Your task to perform on an android device: turn off javascript in the chrome app Image 0: 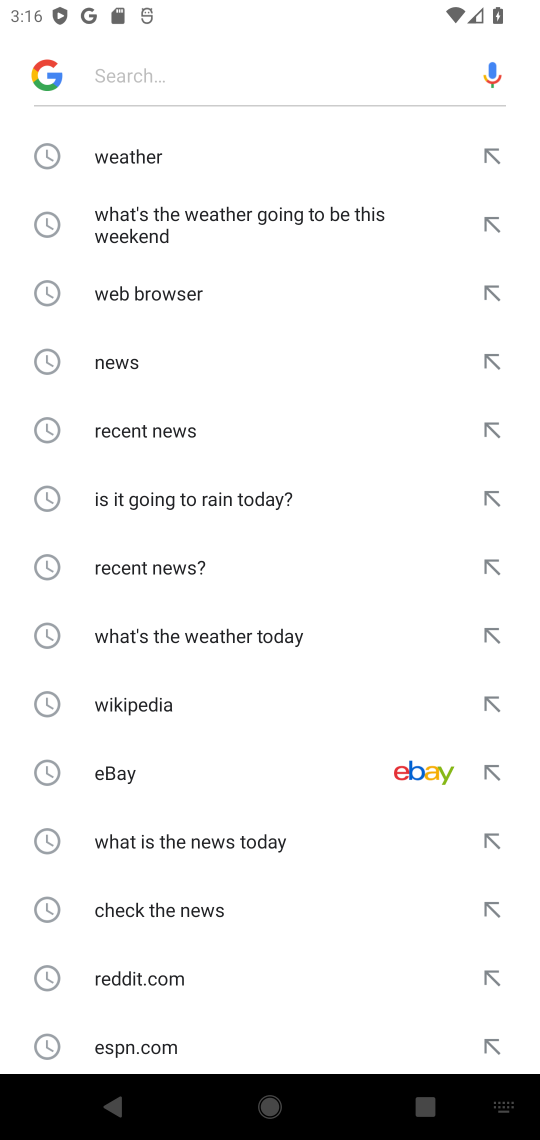
Step 0: drag from (274, 766) to (374, 11)
Your task to perform on an android device: turn off javascript in the chrome app Image 1: 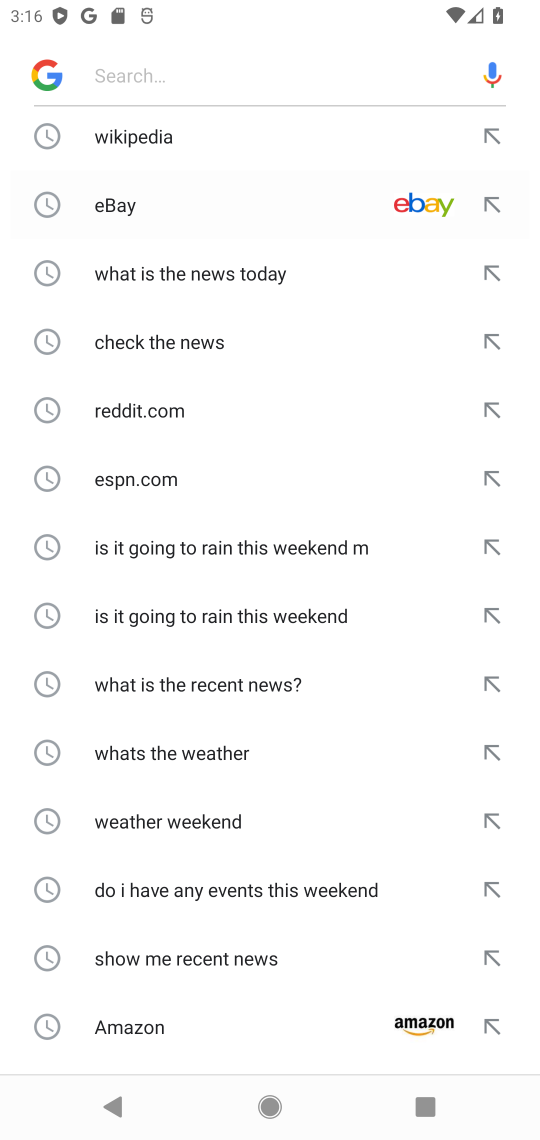
Step 1: drag from (306, 585) to (5, 877)
Your task to perform on an android device: turn off javascript in the chrome app Image 2: 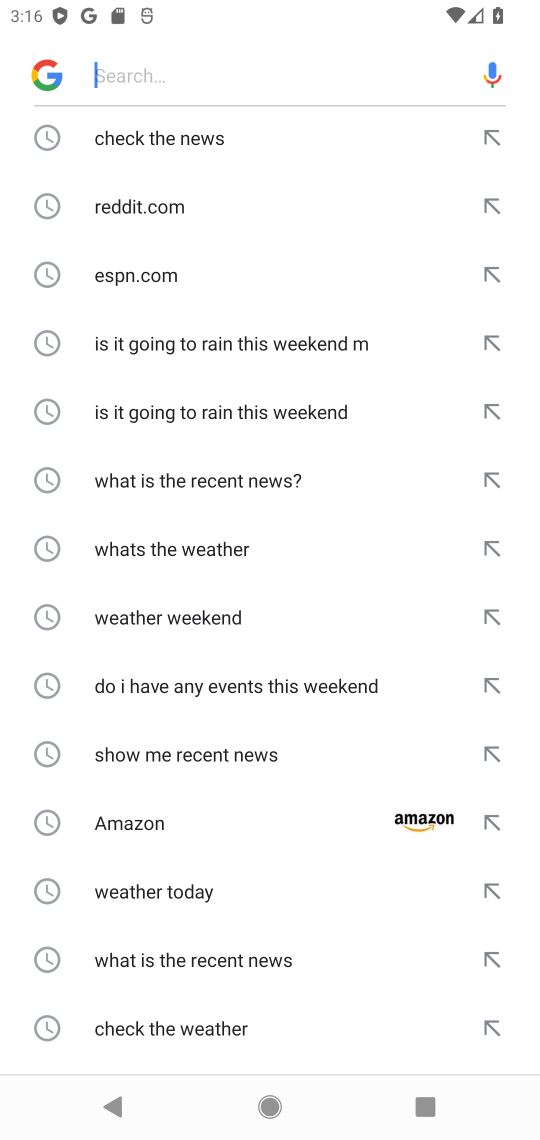
Step 2: press home button
Your task to perform on an android device: turn off javascript in the chrome app Image 3: 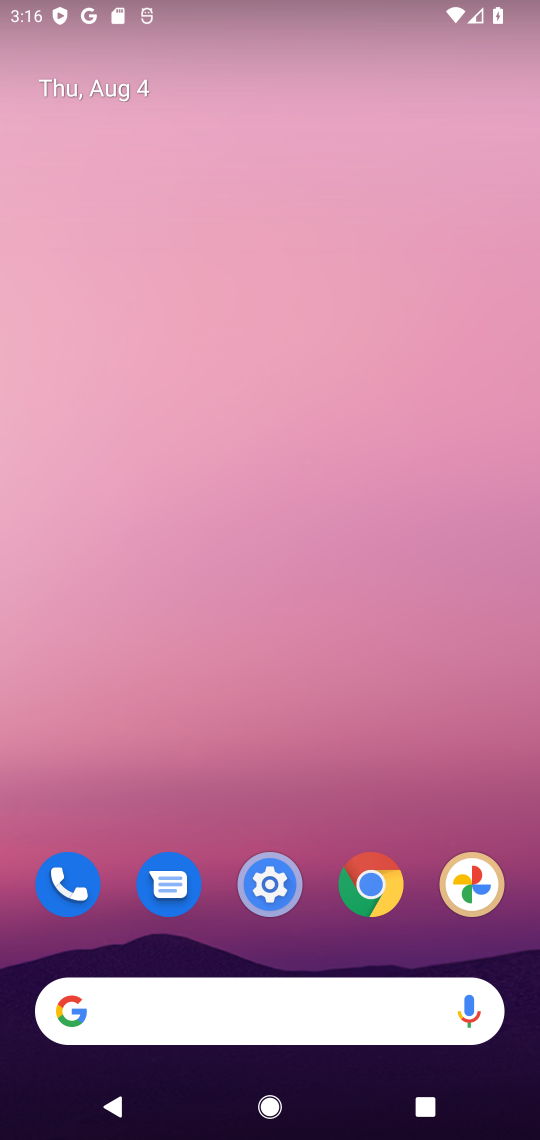
Step 3: drag from (239, 892) to (249, 237)
Your task to perform on an android device: turn off javascript in the chrome app Image 4: 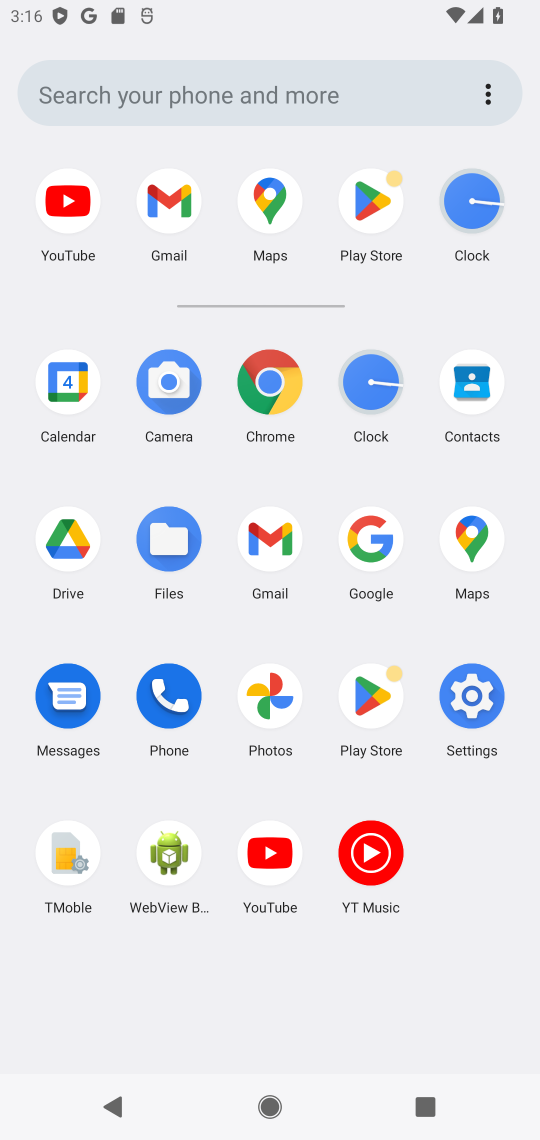
Step 4: click (264, 383)
Your task to perform on an android device: turn off javascript in the chrome app Image 5: 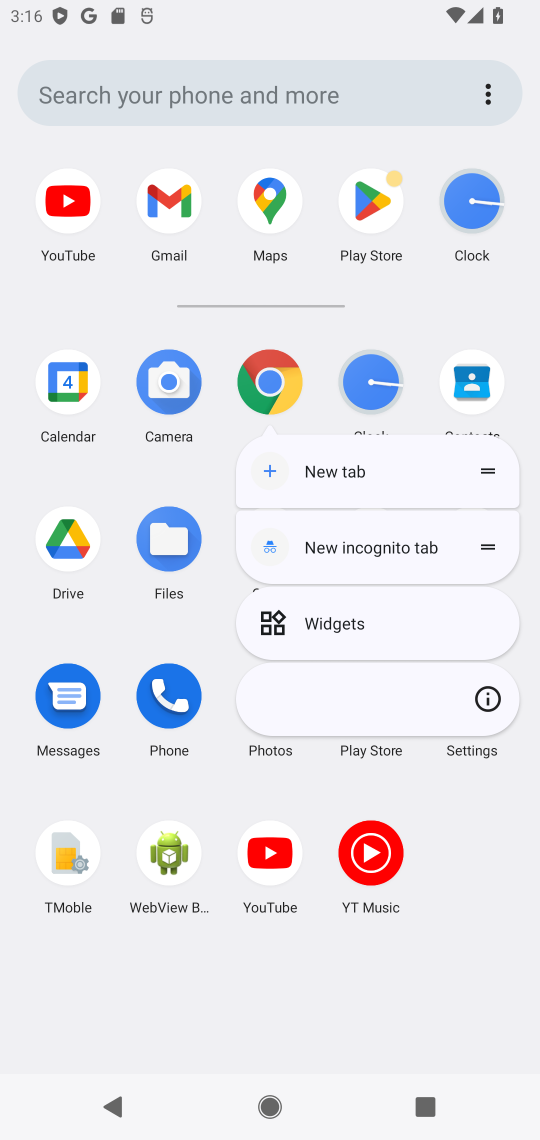
Step 5: click (484, 697)
Your task to perform on an android device: turn off javascript in the chrome app Image 6: 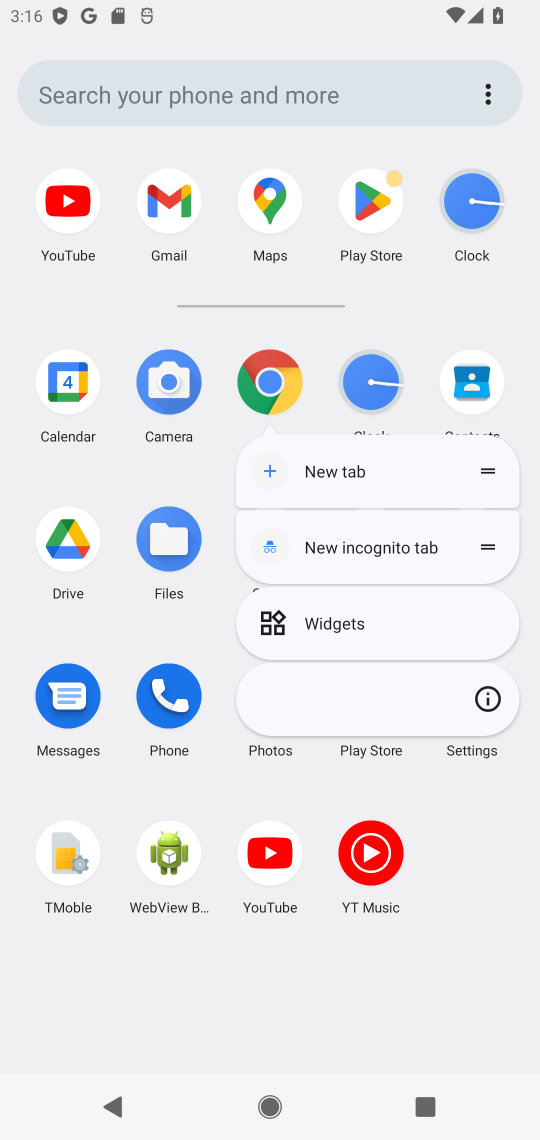
Step 6: click (479, 680)
Your task to perform on an android device: turn off javascript in the chrome app Image 7: 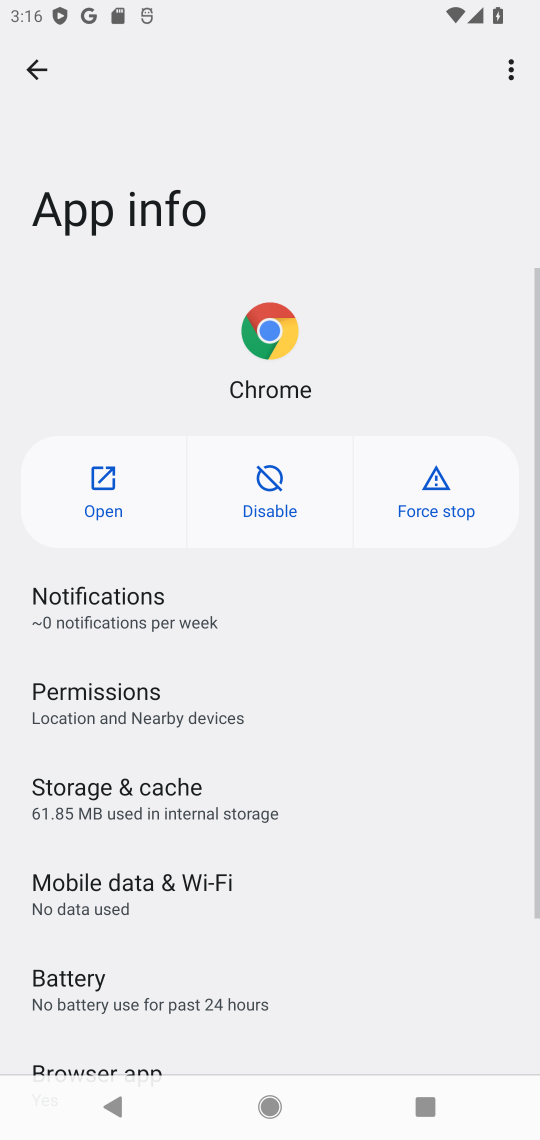
Step 7: click (124, 482)
Your task to perform on an android device: turn off javascript in the chrome app Image 8: 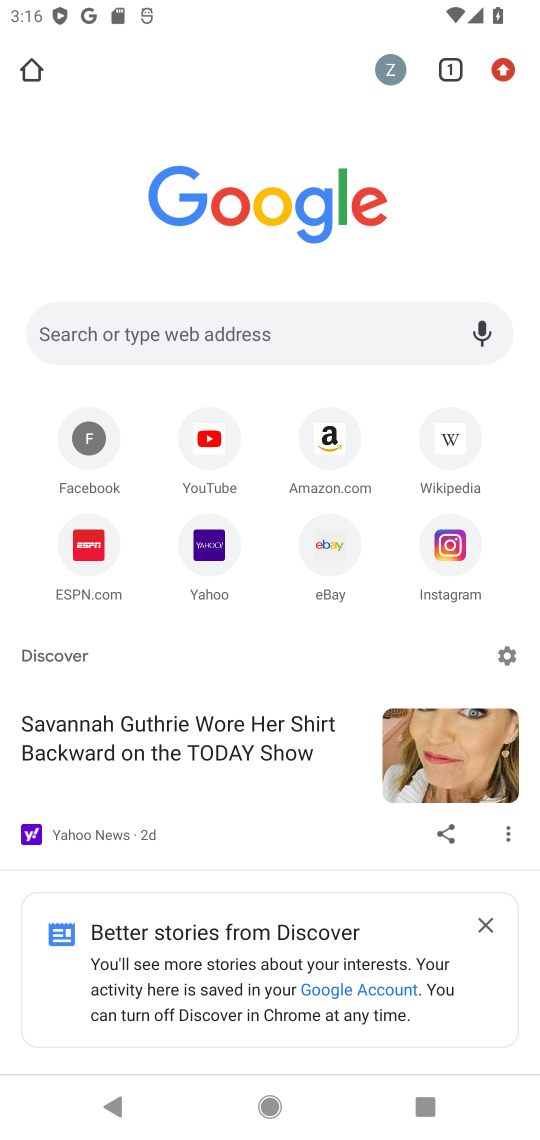
Step 8: drag from (512, 60) to (313, 713)
Your task to perform on an android device: turn off javascript in the chrome app Image 9: 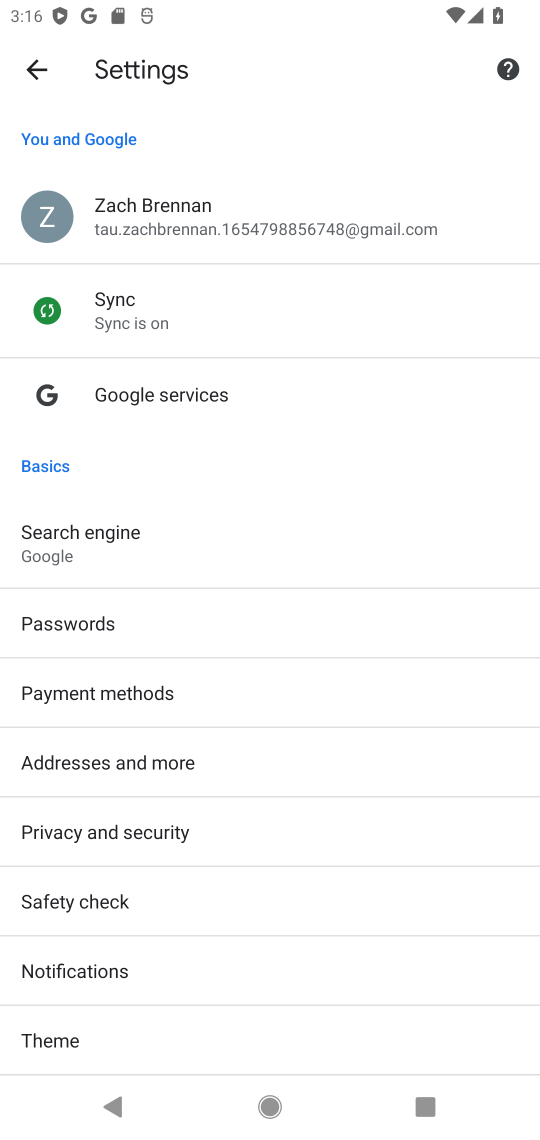
Step 9: drag from (266, 952) to (331, 226)
Your task to perform on an android device: turn off javascript in the chrome app Image 10: 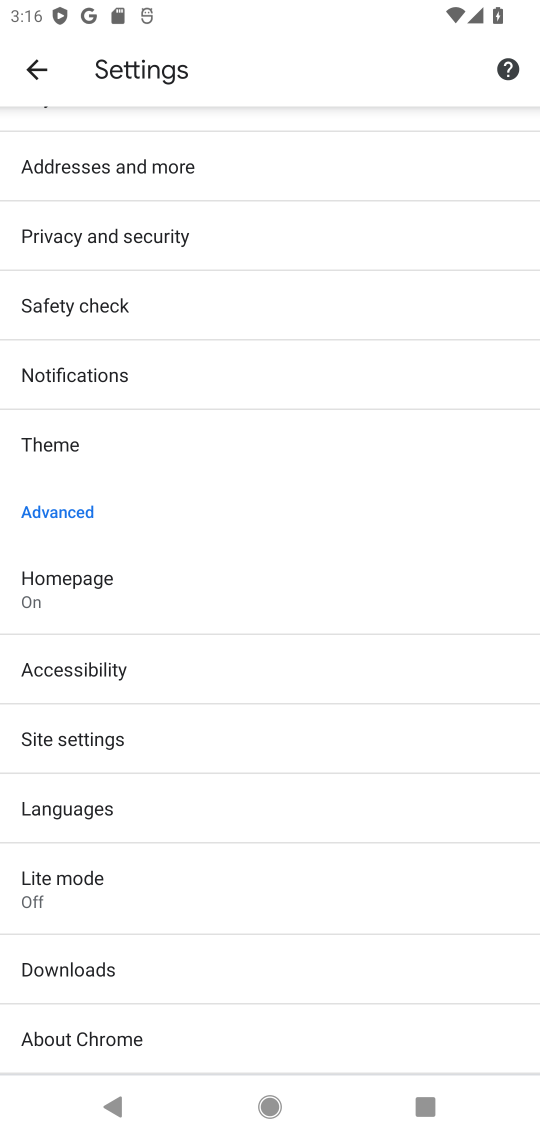
Step 10: drag from (230, 956) to (308, 485)
Your task to perform on an android device: turn off javascript in the chrome app Image 11: 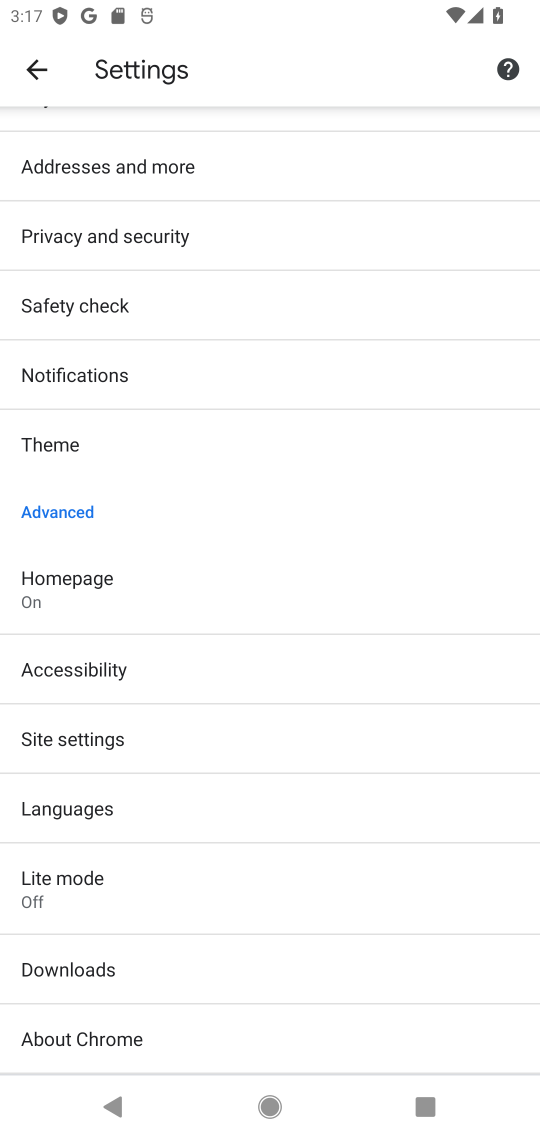
Step 11: click (111, 719)
Your task to perform on an android device: turn off javascript in the chrome app Image 12: 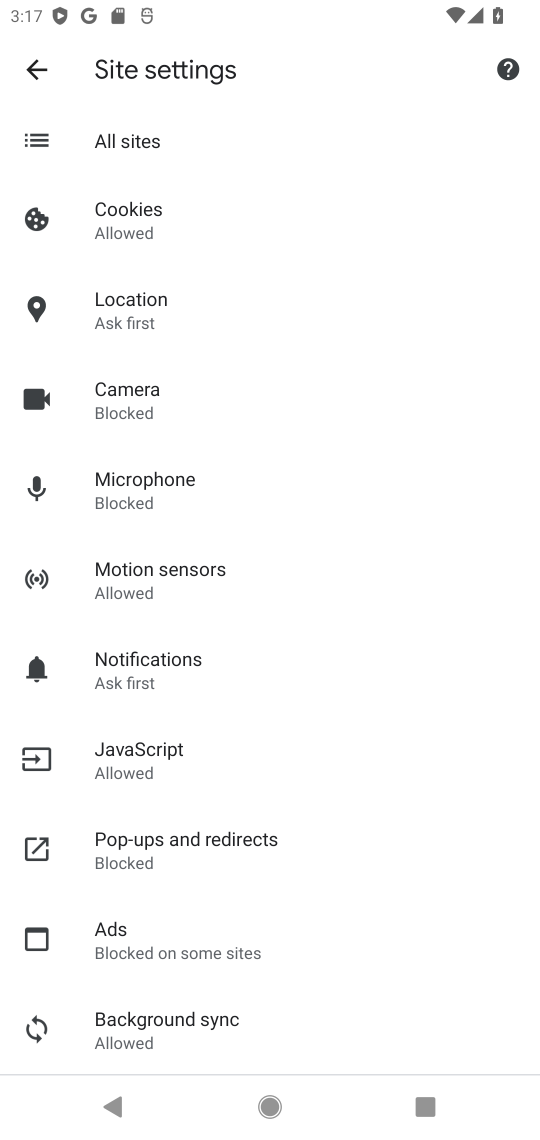
Step 12: click (189, 755)
Your task to perform on an android device: turn off javascript in the chrome app Image 13: 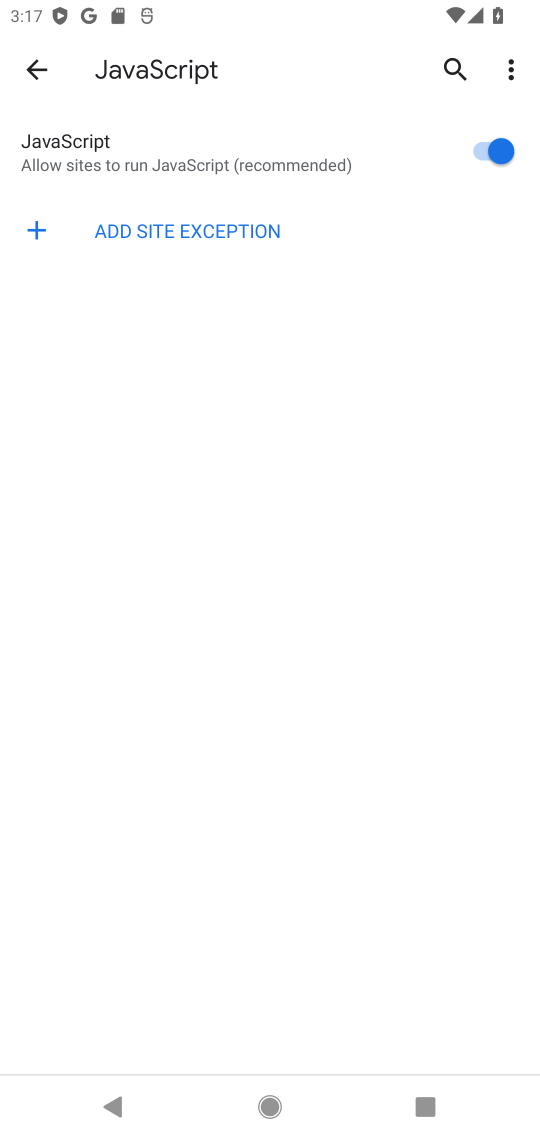
Step 13: click (491, 146)
Your task to perform on an android device: turn off javascript in the chrome app Image 14: 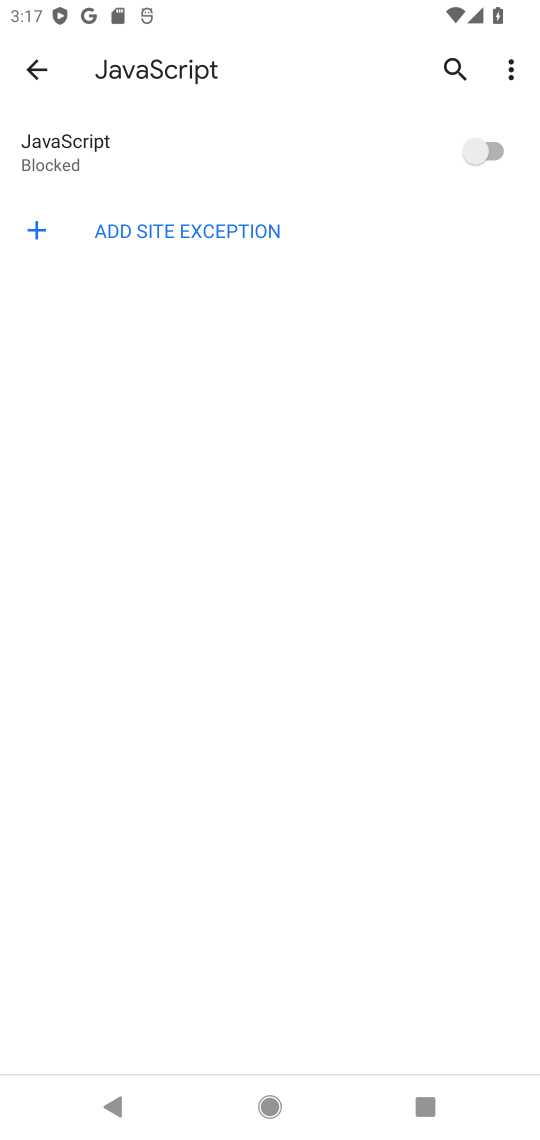
Step 14: task complete